Your task to perform on an android device: Open the web browser Image 0: 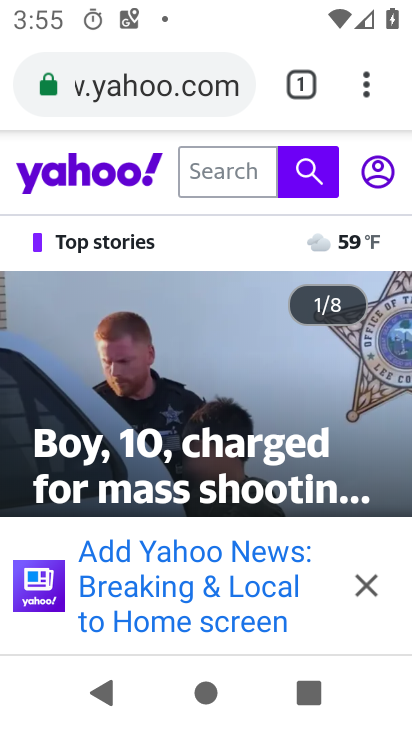
Step 0: press home button
Your task to perform on an android device: Open the web browser Image 1: 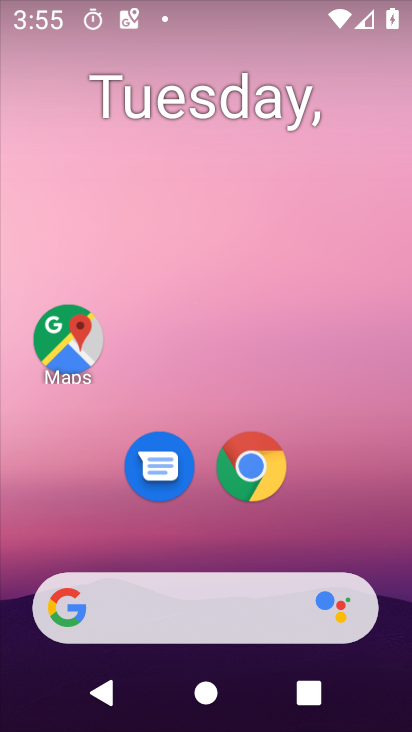
Step 1: drag from (370, 550) to (356, 66)
Your task to perform on an android device: Open the web browser Image 2: 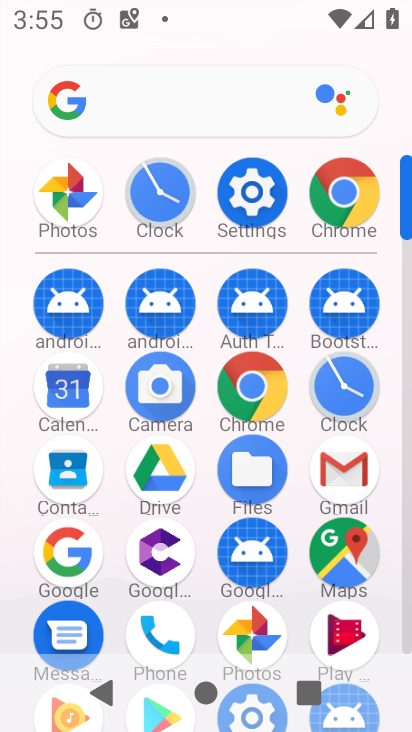
Step 2: click (265, 405)
Your task to perform on an android device: Open the web browser Image 3: 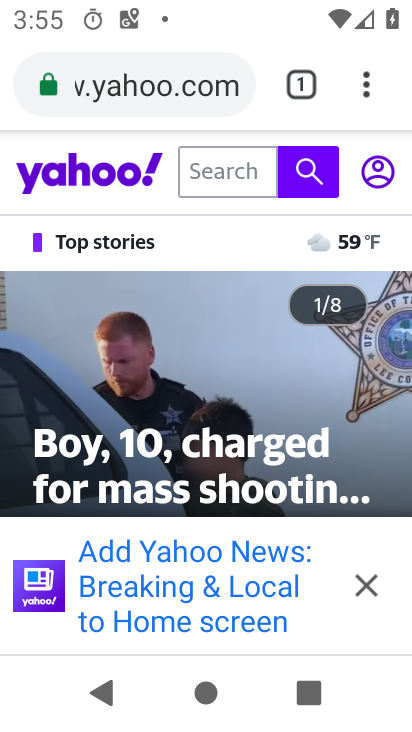
Step 3: task complete